Your task to perform on an android device: delete browsing data in the chrome app Image 0: 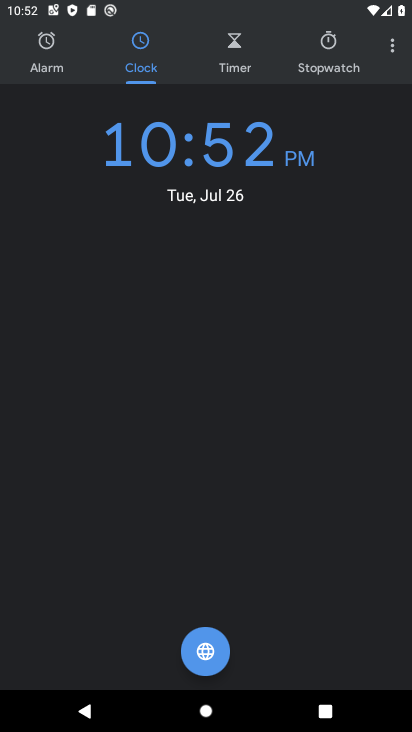
Step 0: press home button
Your task to perform on an android device: delete browsing data in the chrome app Image 1: 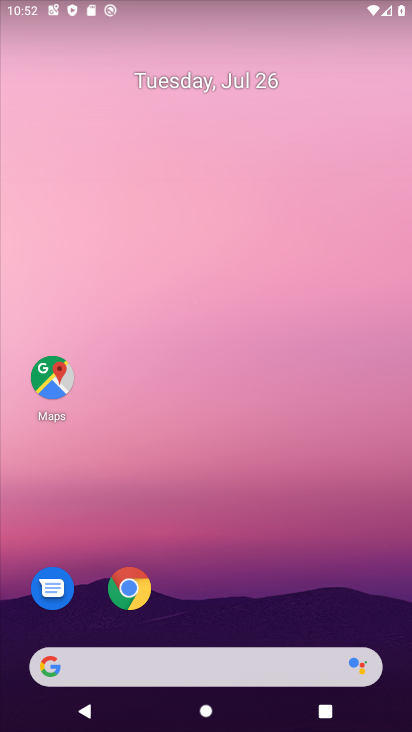
Step 1: click (129, 585)
Your task to perform on an android device: delete browsing data in the chrome app Image 2: 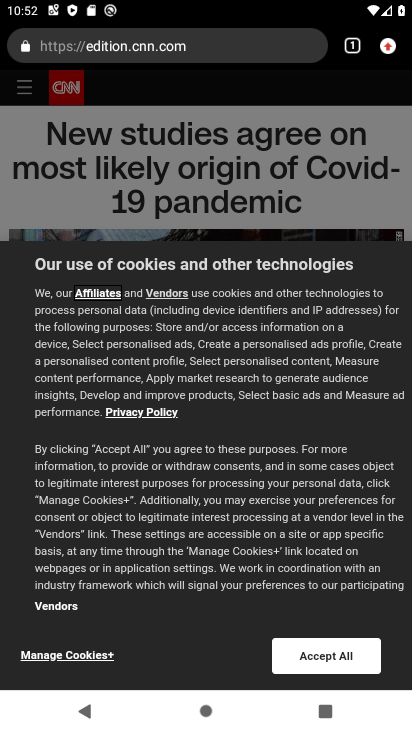
Step 2: click (388, 47)
Your task to perform on an android device: delete browsing data in the chrome app Image 3: 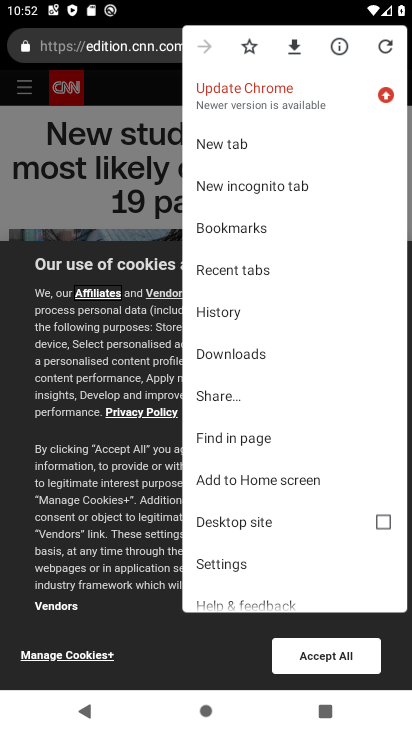
Step 3: click (229, 312)
Your task to perform on an android device: delete browsing data in the chrome app Image 4: 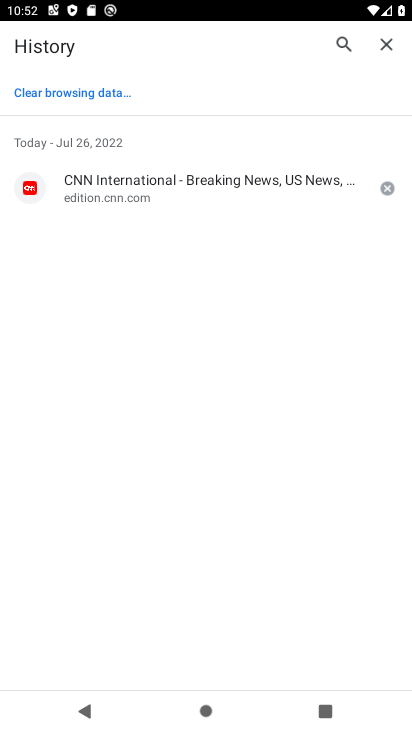
Step 4: task complete